Your task to perform on an android device: Open battery settings Image 0: 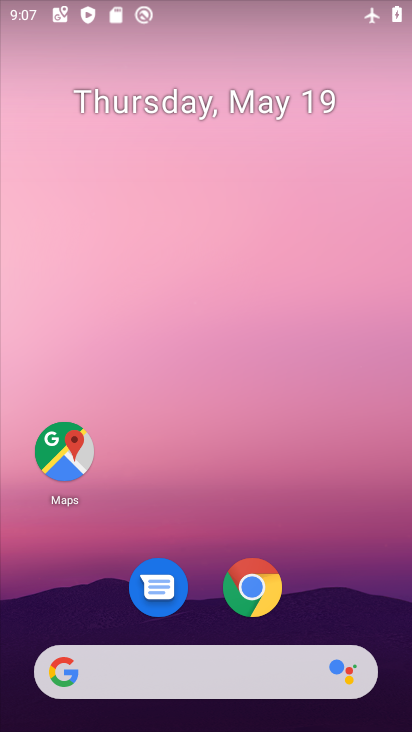
Step 0: drag from (352, 580) to (242, 53)
Your task to perform on an android device: Open battery settings Image 1: 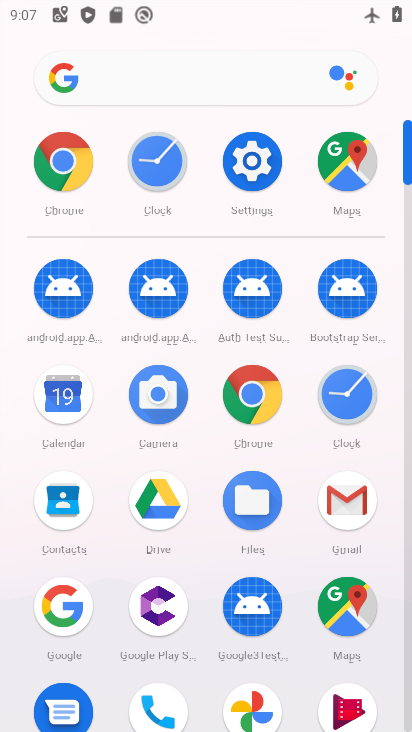
Step 1: click (248, 149)
Your task to perform on an android device: Open battery settings Image 2: 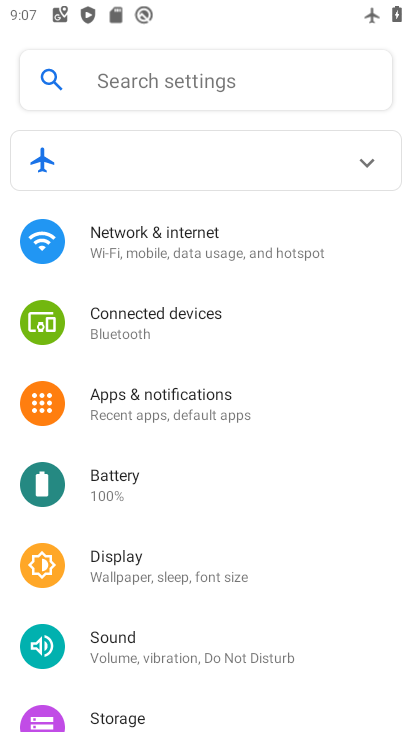
Step 2: drag from (233, 599) to (251, 356)
Your task to perform on an android device: Open battery settings Image 3: 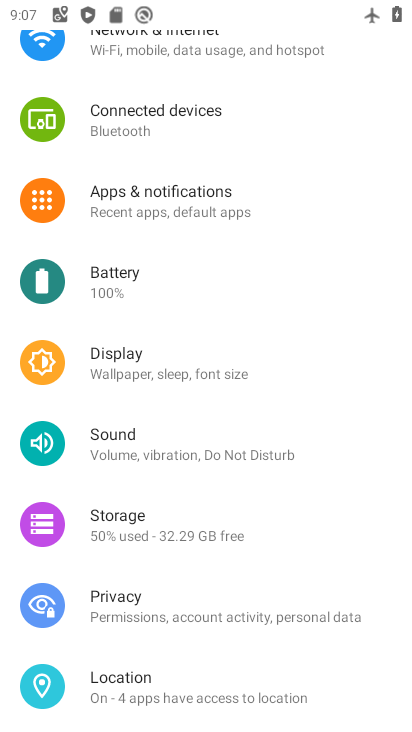
Step 3: click (141, 259)
Your task to perform on an android device: Open battery settings Image 4: 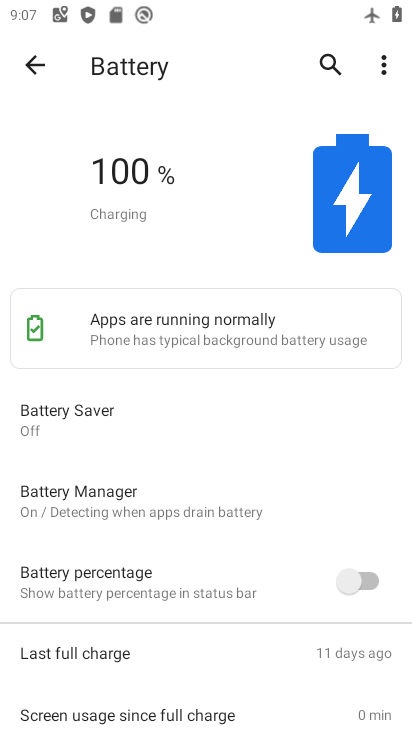
Step 4: task complete